Your task to perform on an android device: Search for Mexican restaurants on Maps Image 0: 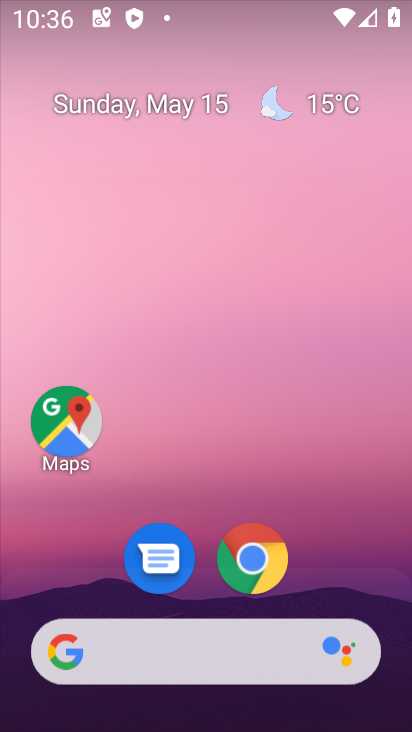
Step 0: click (60, 438)
Your task to perform on an android device: Search for Mexican restaurants on Maps Image 1: 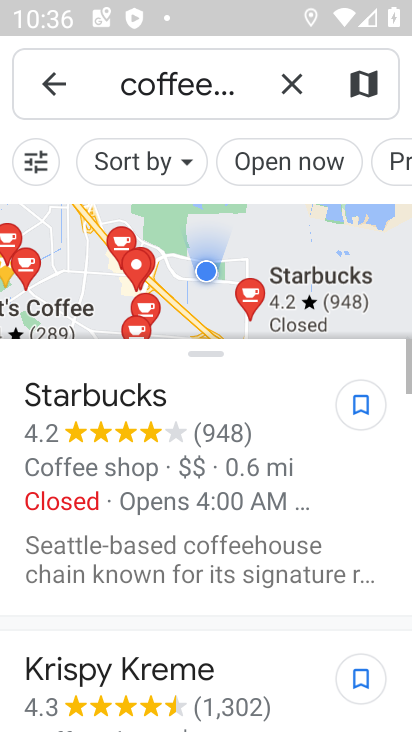
Step 1: click (304, 88)
Your task to perform on an android device: Search for Mexican restaurants on Maps Image 2: 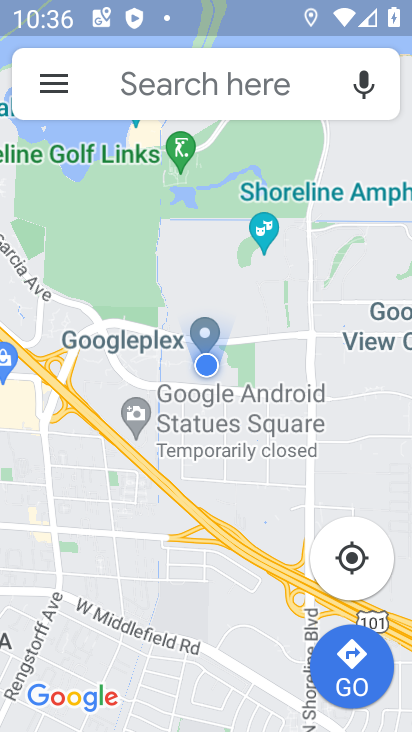
Step 2: click (274, 77)
Your task to perform on an android device: Search for Mexican restaurants on Maps Image 3: 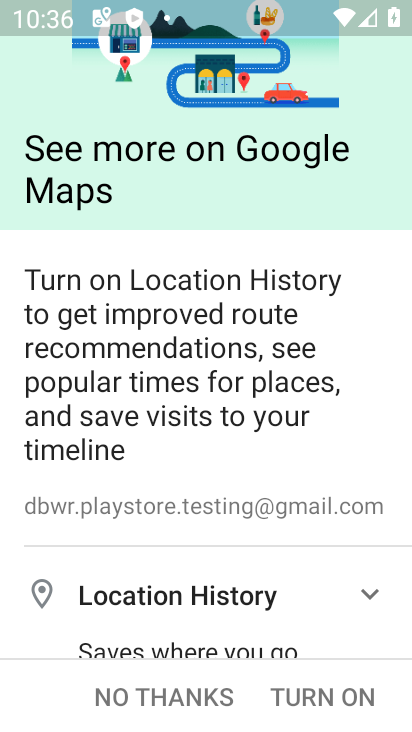
Step 3: type "M"
Your task to perform on an android device: Search for Mexican restaurants on Maps Image 4: 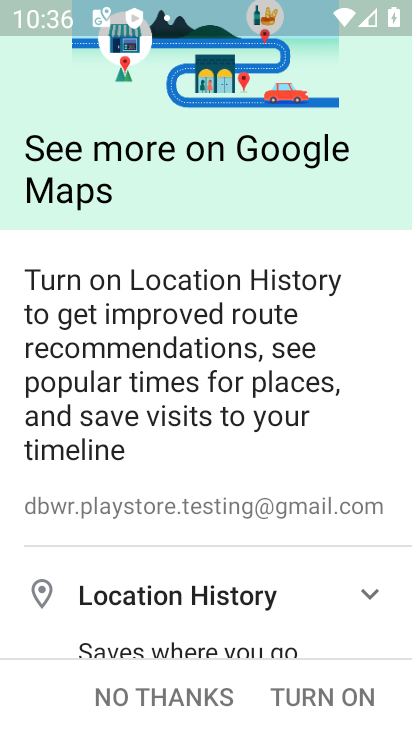
Step 4: click (198, 700)
Your task to perform on an android device: Search for Mexican restaurants on Maps Image 5: 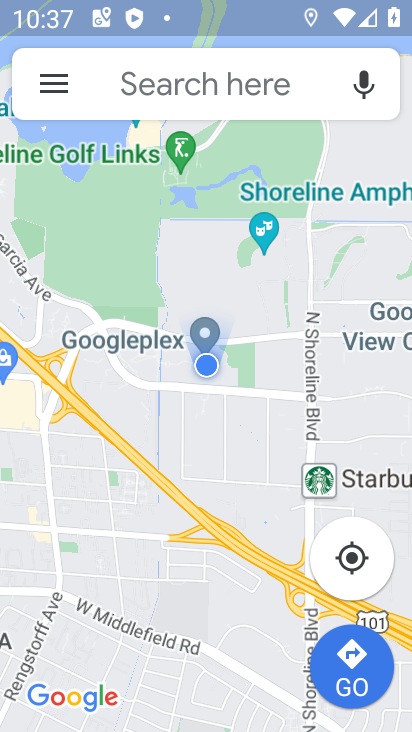
Step 5: type "Mexican restaurants"
Your task to perform on an android device: Search for Mexican restaurants on Maps Image 6: 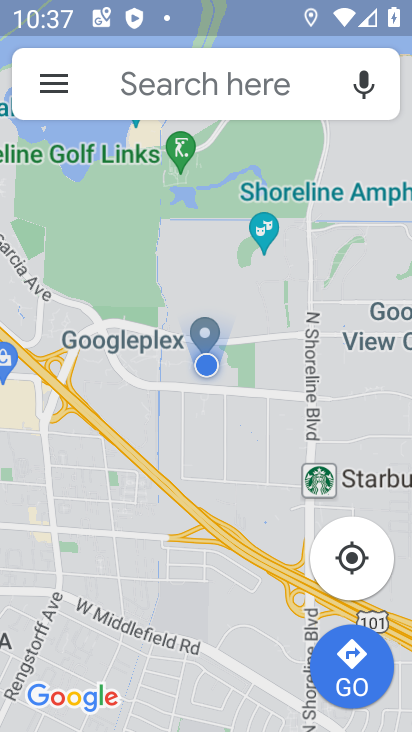
Step 6: click (154, 75)
Your task to perform on an android device: Search for Mexican restaurants on Maps Image 7: 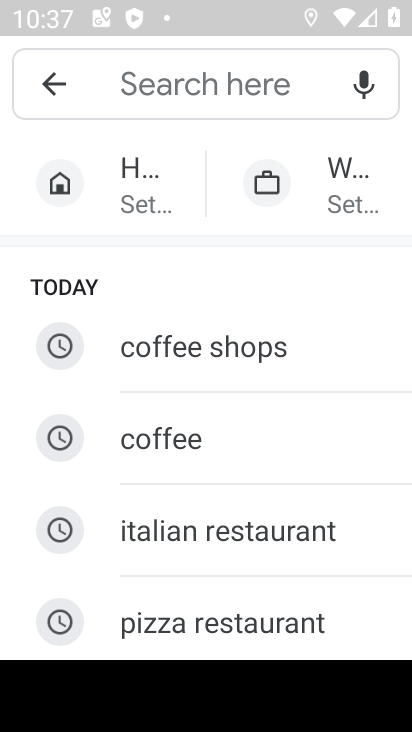
Step 7: type "Mexican restaurants"
Your task to perform on an android device: Search for Mexican restaurants on Maps Image 8: 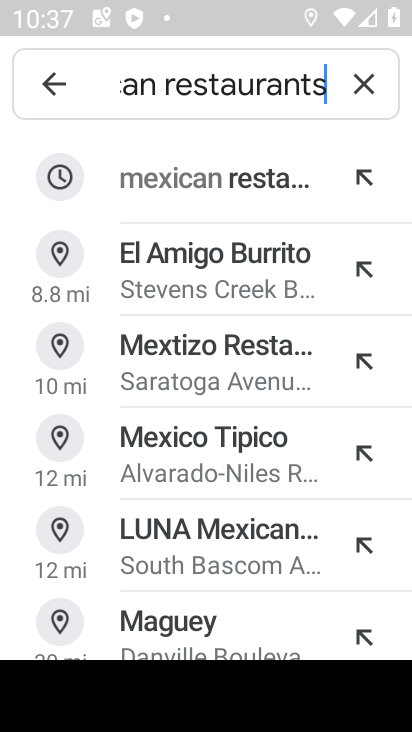
Step 8: click (229, 197)
Your task to perform on an android device: Search for Mexican restaurants on Maps Image 9: 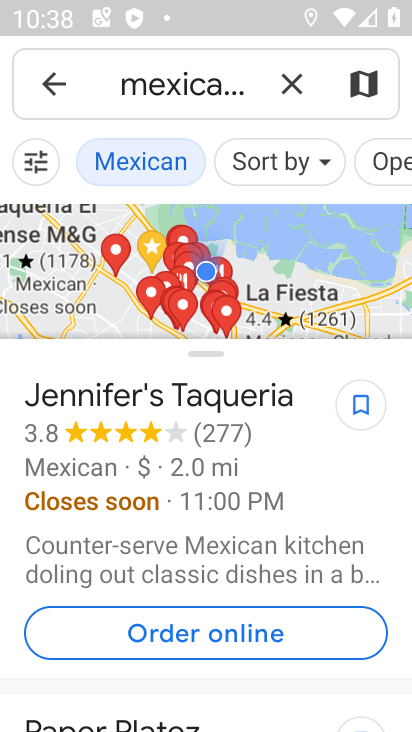
Step 9: task complete